Your task to perform on an android device: Open CNN.com Image 0: 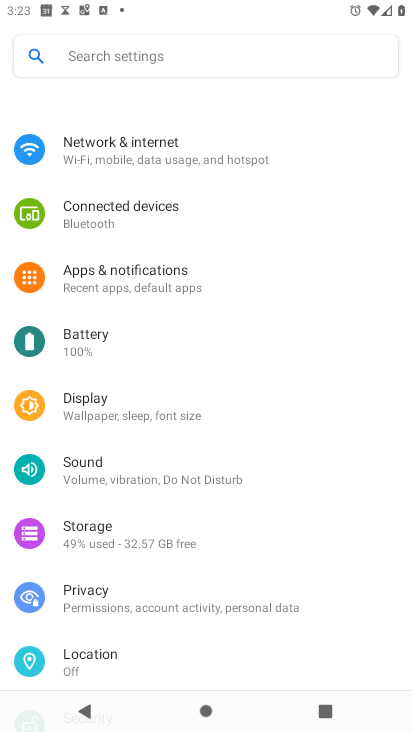
Step 0: click (257, 573)
Your task to perform on an android device: Open CNN.com Image 1: 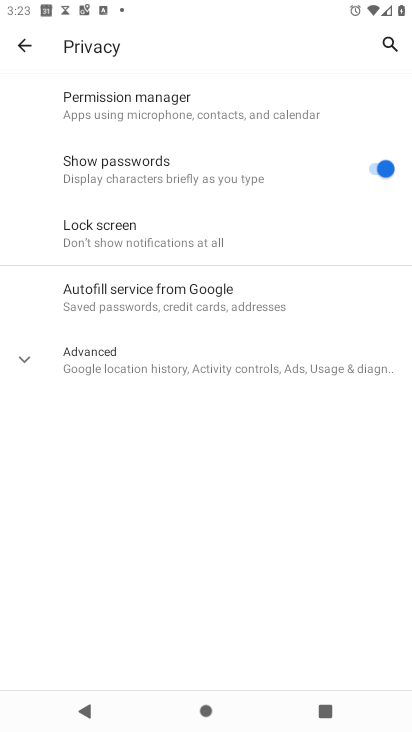
Step 1: press home button
Your task to perform on an android device: Open CNN.com Image 2: 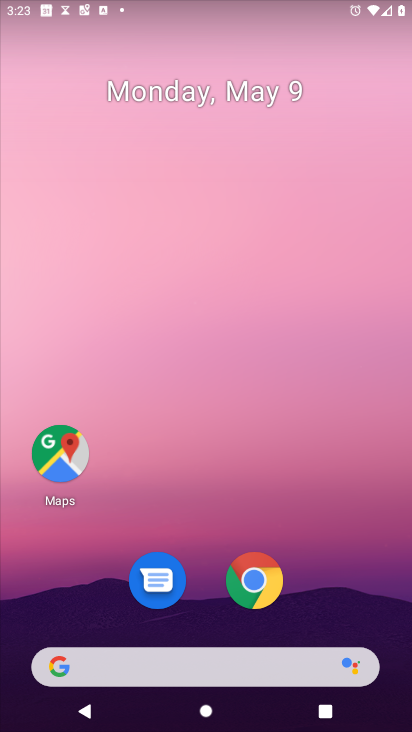
Step 2: click (243, 578)
Your task to perform on an android device: Open CNN.com Image 3: 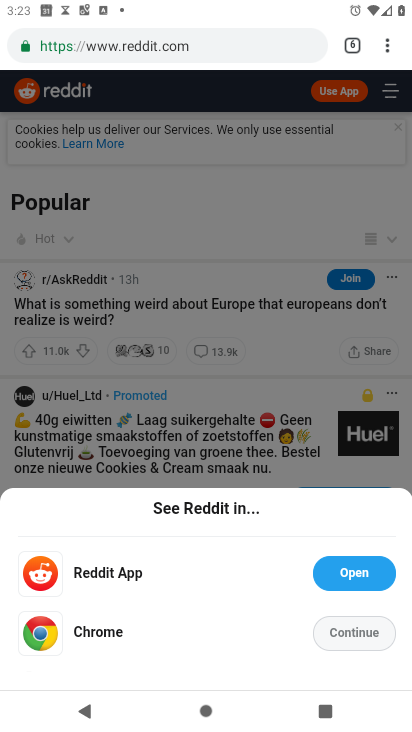
Step 3: click (354, 38)
Your task to perform on an android device: Open CNN.com Image 4: 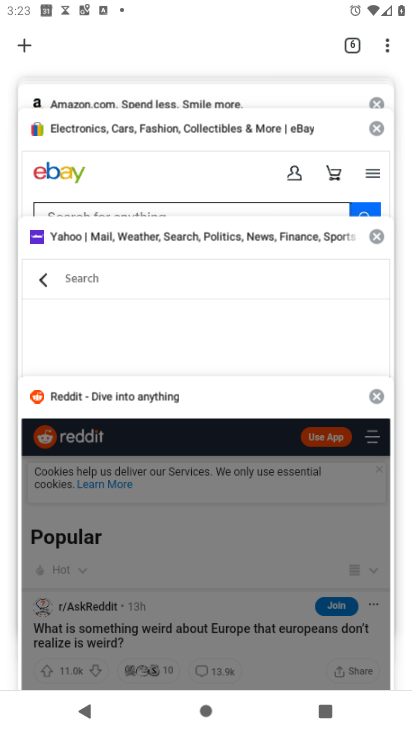
Step 4: click (15, 43)
Your task to perform on an android device: Open CNN.com Image 5: 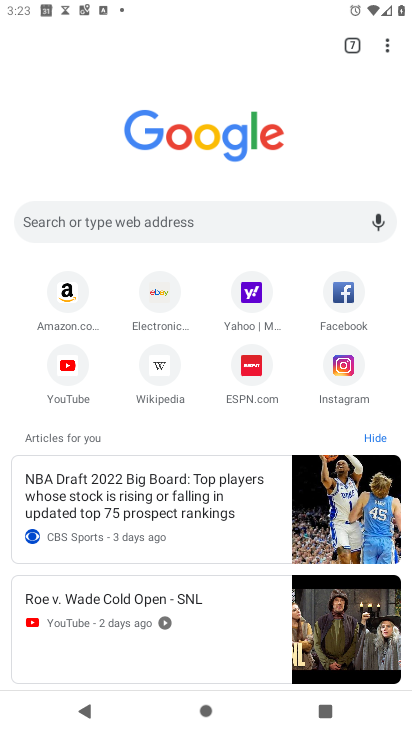
Step 5: click (179, 210)
Your task to perform on an android device: Open CNN.com Image 6: 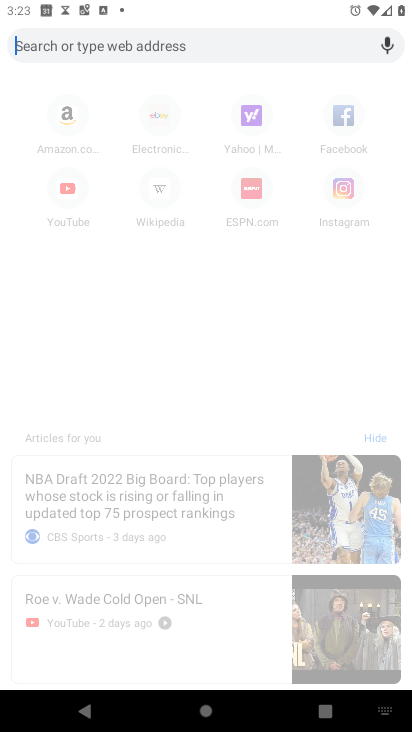
Step 6: type "CNN.com"
Your task to perform on an android device: Open CNN.com Image 7: 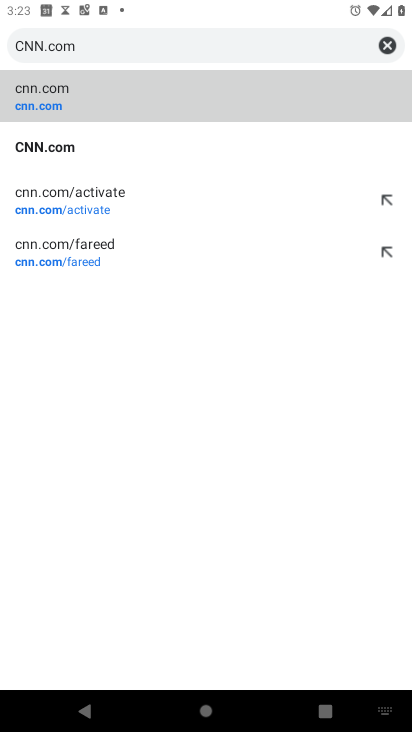
Step 7: click (104, 95)
Your task to perform on an android device: Open CNN.com Image 8: 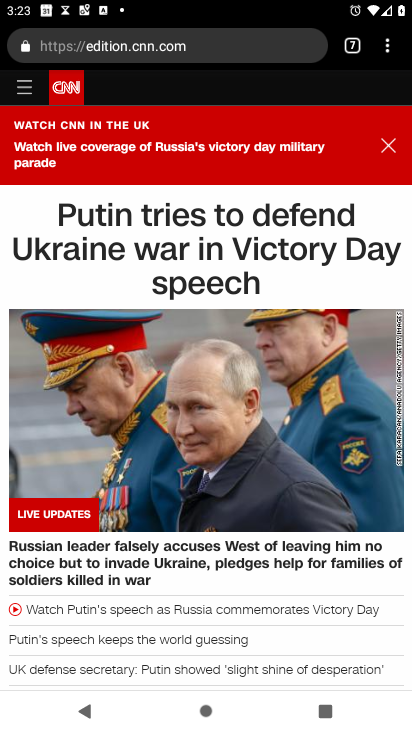
Step 8: task complete